Your task to perform on an android device: What's the weather today? Image 0: 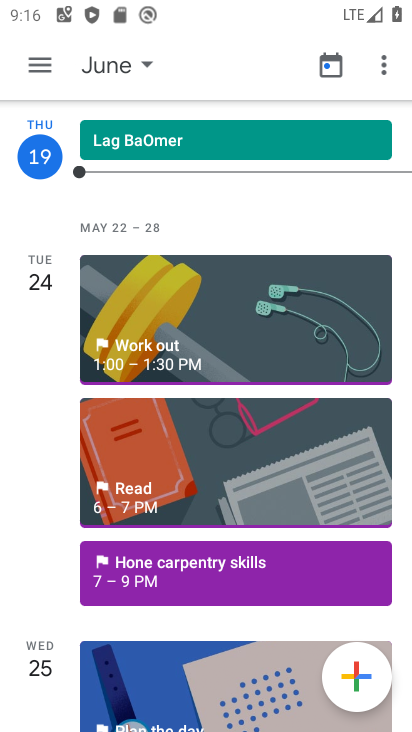
Step 0: press home button
Your task to perform on an android device: What's the weather today? Image 1: 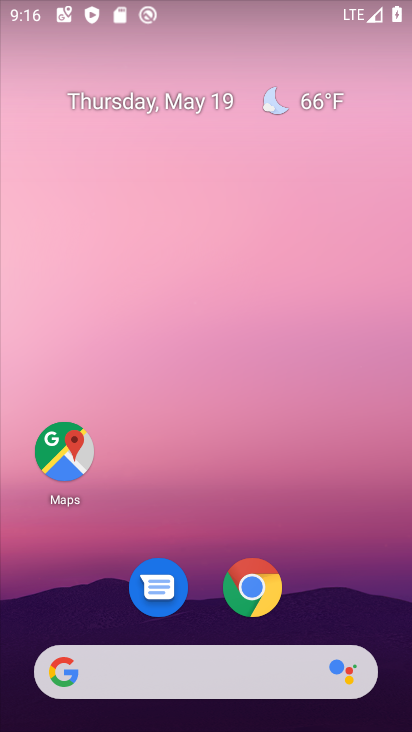
Step 1: click (163, 321)
Your task to perform on an android device: What's the weather today? Image 2: 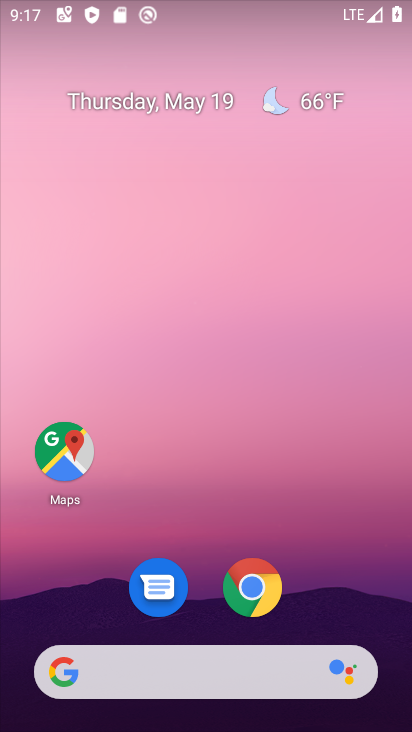
Step 2: click (267, 195)
Your task to perform on an android device: What's the weather today? Image 3: 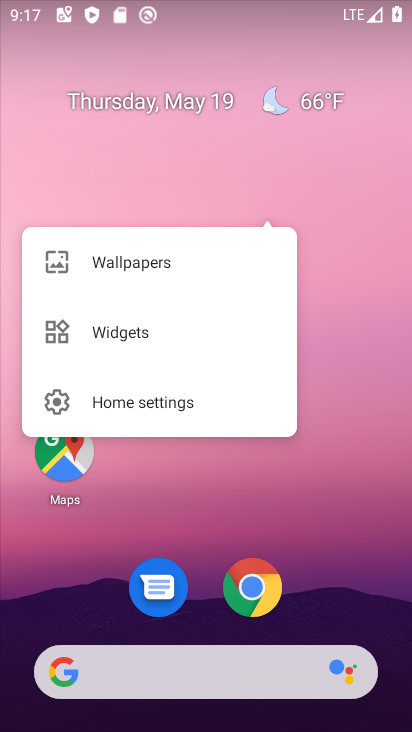
Step 3: click (322, 458)
Your task to perform on an android device: What's the weather today? Image 4: 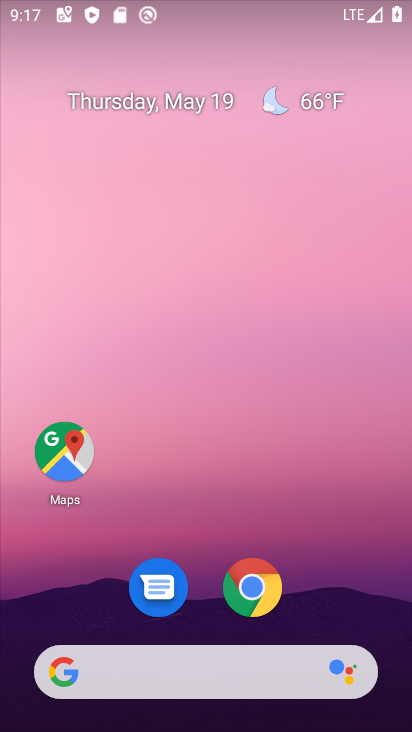
Step 4: drag from (240, 692) to (220, 112)
Your task to perform on an android device: What's the weather today? Image 5: 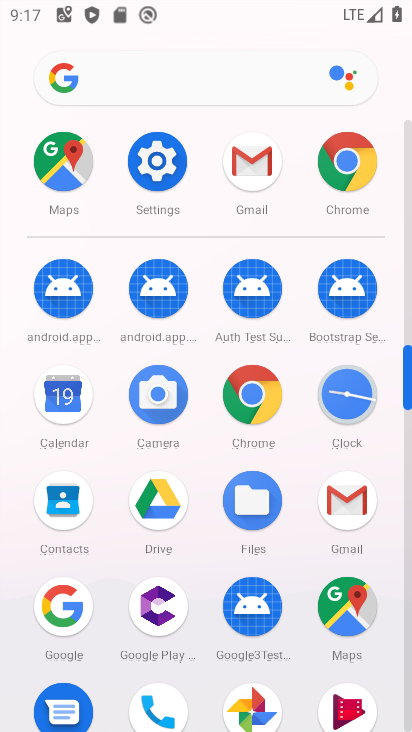
Step 5: click (108, 93)
Your task to perform on an android device: What's the weather today? Image 6: 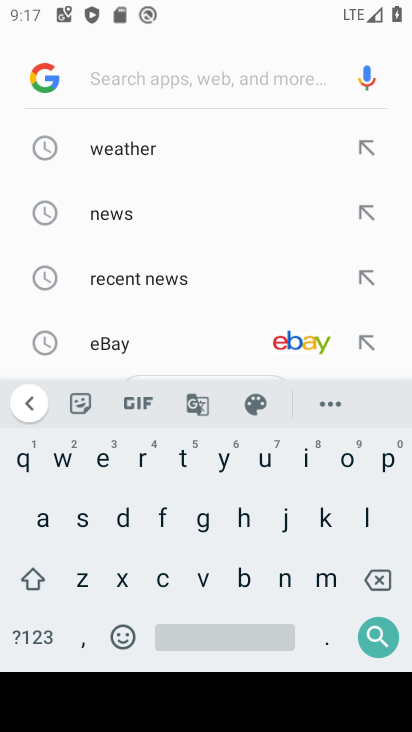
Step 6: click (146, 148)
Your task to perform on an android device: What's the weather today? Image 7: 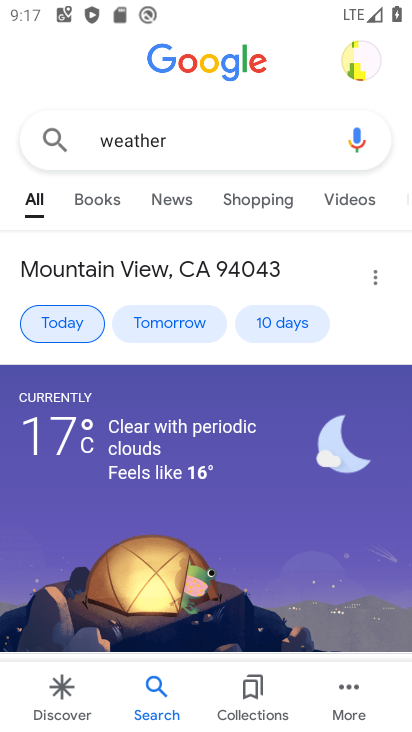
Step 7: task complete